Your task to perform on an android device: turn on bluetooth scan Image 0: 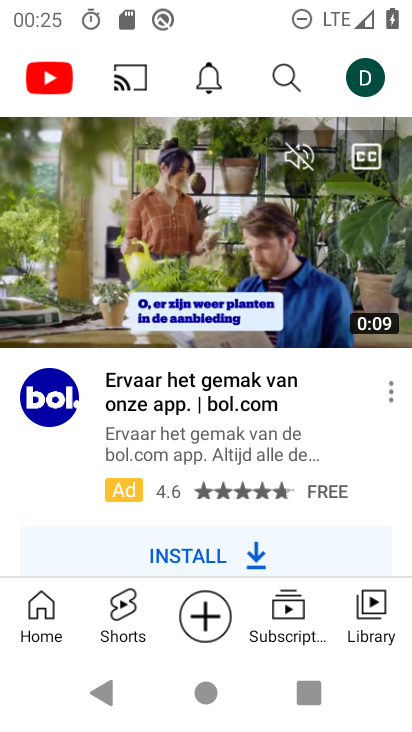
Step 0: press home button
Your task to perform on an android device: turn on bluetooth scan Image 1: 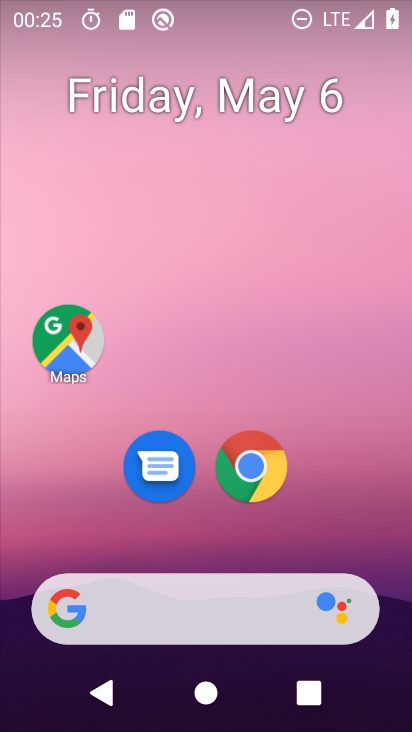
Step 1: drag from (164, 559) to (185, 219)
Your task to perform on an android device: turn on bluetooth scan Image 2: 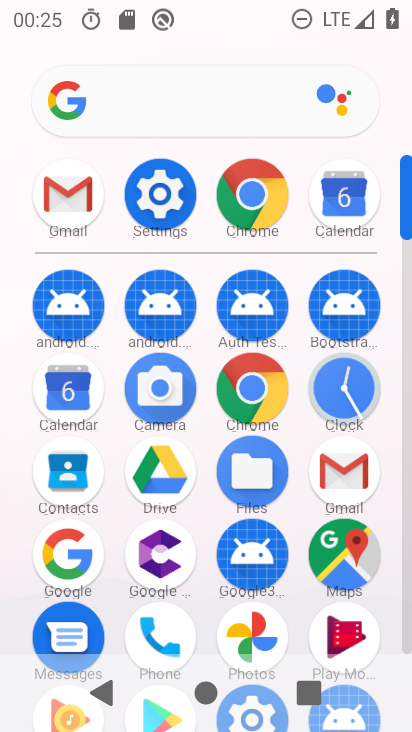
Step 2: click (165, 197)
Your task to perform on an android device: turn on bluetooth scan Image 3: 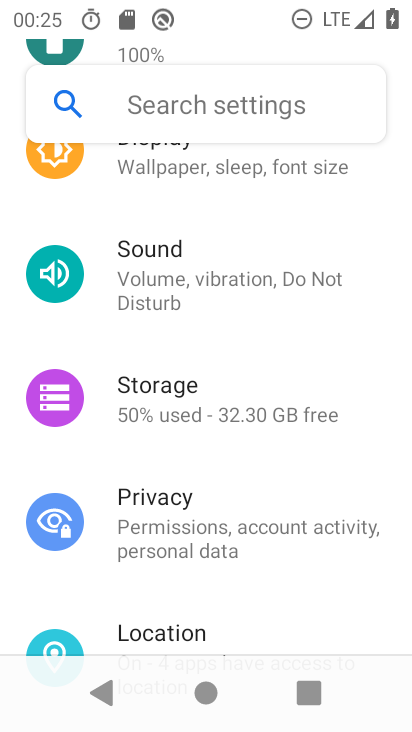
Step 3: click (244, 602)
Your task to perform on an android device: turn on bluetooth scan Image 4: 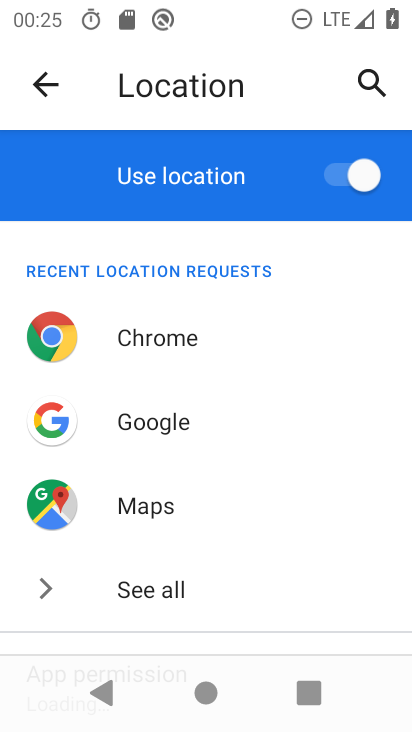
Step 4: drag from (247, 619) to (291, 284)
Your task to perform on an android device: turn on bluetooth scan Image 5: 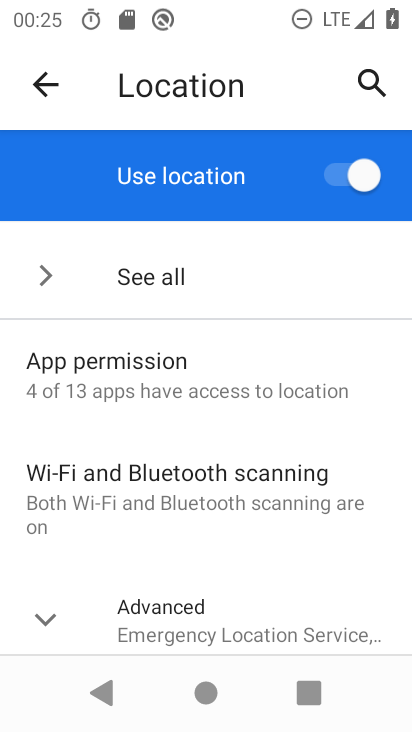
Step 5: click (255, 498)
Your task to perform on an android device: turn on bluetooth scan Image 6: 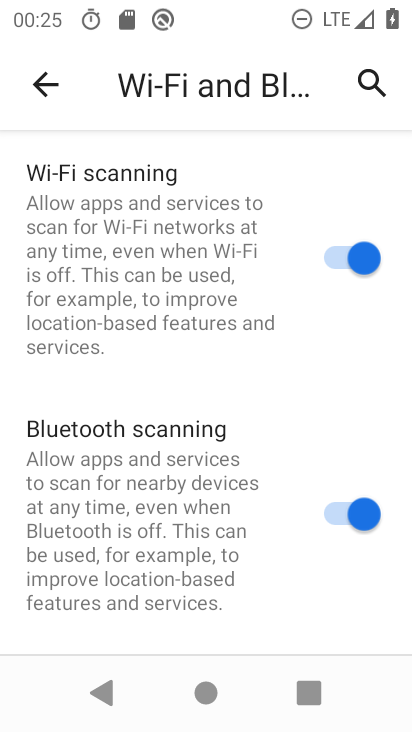
Step 6: task complete